Your task to perform on an android device: set the stopwatch Image 0: 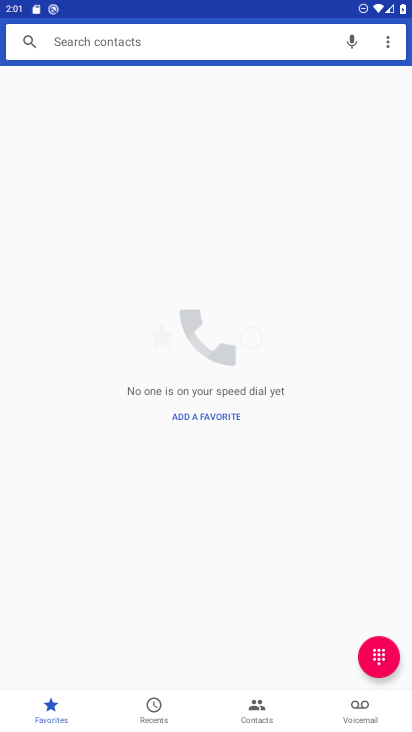
Step 0: press home button
Your task to perform on an android device: set the stopwatch Image 1: 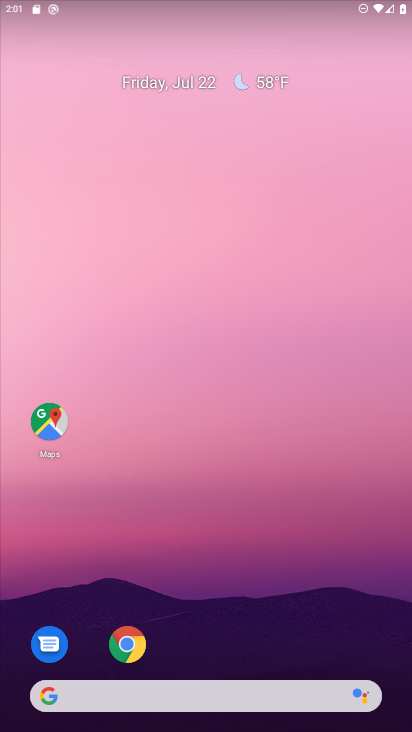
Step 1: drag from (191, 631) to (250, 161)
Your task to perform on an android device: set the stopwatch Image 2: 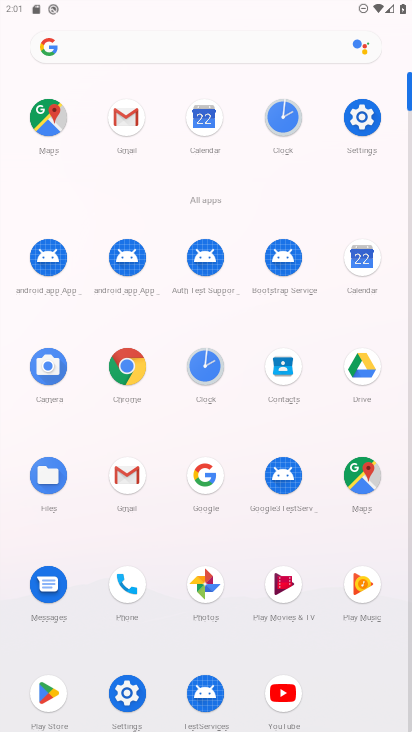
Step 2: click (277, 132)
Your task to perform on an android device: set the stopwatch Image 3: 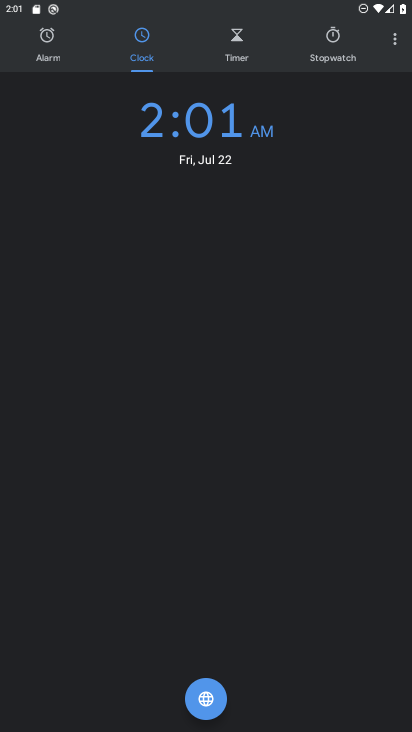
Step 3: click (341, 48)
Your task to perform on an android device: set the stopwatch Image 4: 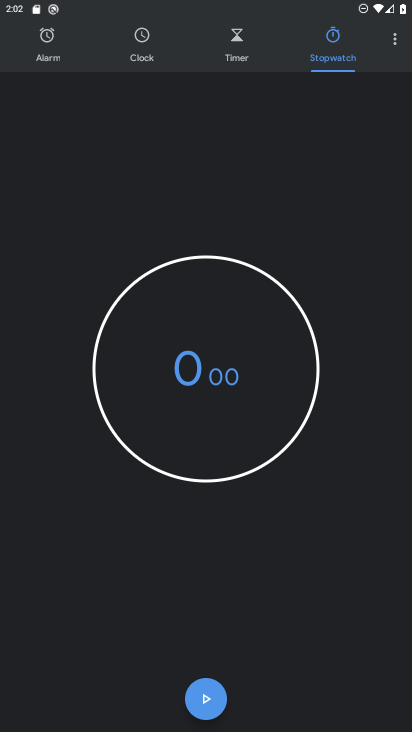
Step 4: click (196, 705)
Your task to perform on an android device: set the stopwatch Image 5: 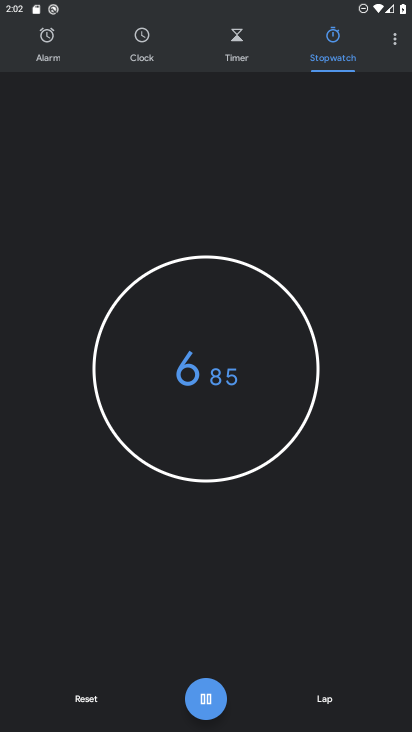
Step 5: task complete